Your task to perform on an android device: Open the phone app and click the voicemail tab. Image 0: 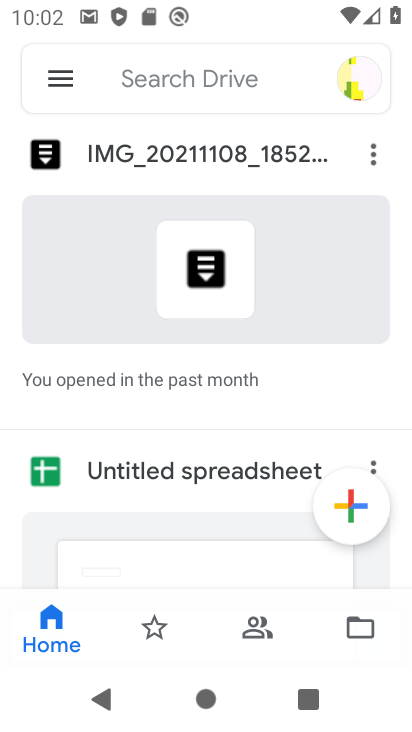
Step 0: press home button
Your task to perform on an android device: Open the phone app and click the voicemail tab. Image 1: 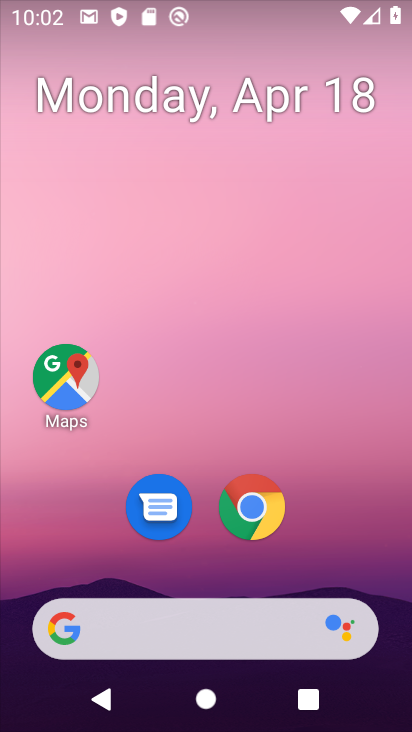
Step 1: drag from (317, 416) to (321, 53)
Your task to perform on an android device: Open the phone app and click the voicemail tab. Image 2: 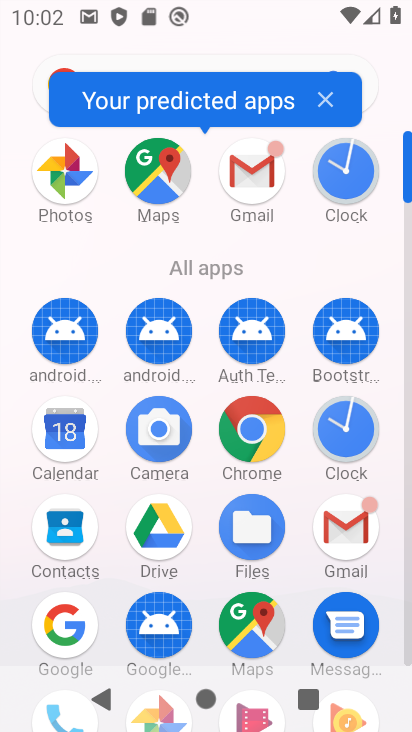
Step 2: drag from (202, 498) to (219, 227)
Your task to perform on an android device: Open the phone app and click the voicemail tab. Image 3: 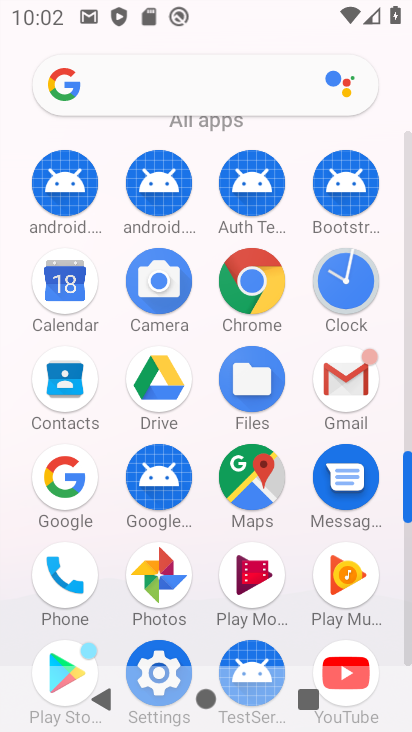
Step 3: click (75, 564)
Your task to perform on an android device: Open the phone app and click the voicemail tab. Image 4: 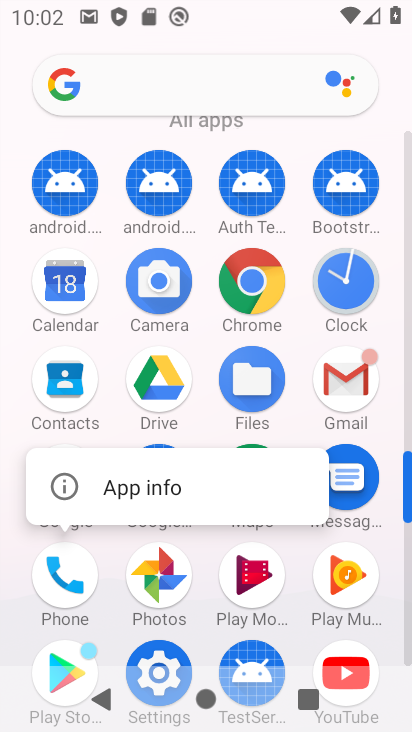
Step 4: click (78, 566)
Your task to perform on an android device: Open the phone app and click the voicemail tab. Image 5: 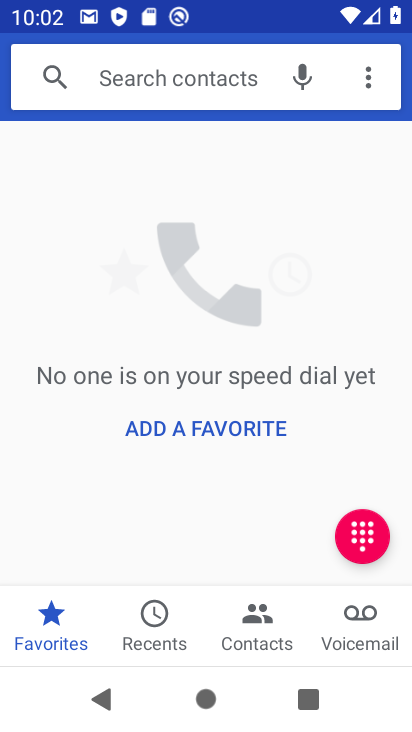
Step 5: click (351, 620)
Your task to perform on an android device: Open the phone app and click the voicemail tab. Image 6: 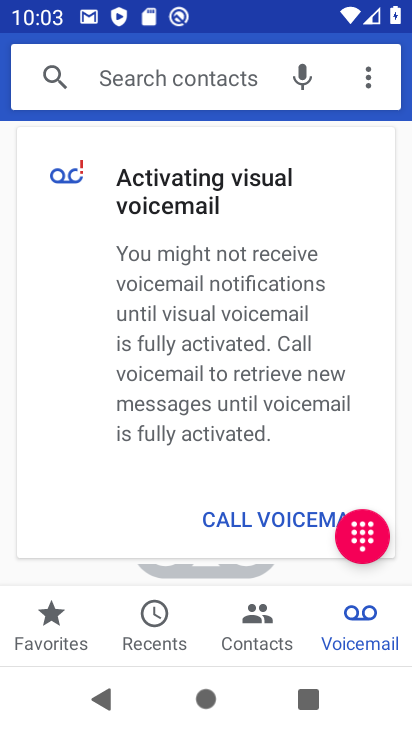
Step 6: task complete